Your task to perform on an android device: clear all cookies in the chrome app Image 0: 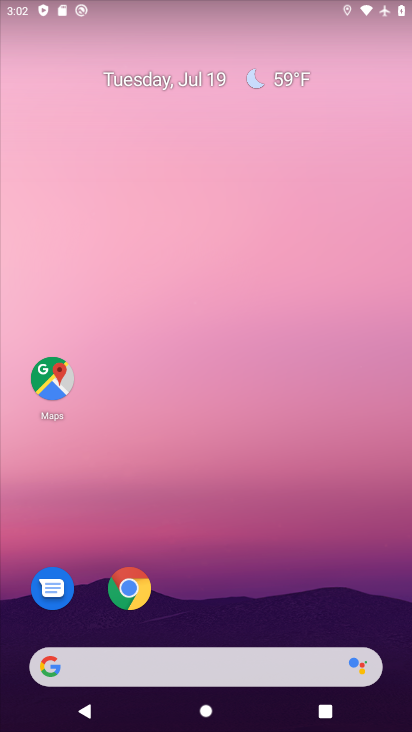
Step 0: press home button
Your task to perform on an android device: clear all cookies in the chrome app Image 1: 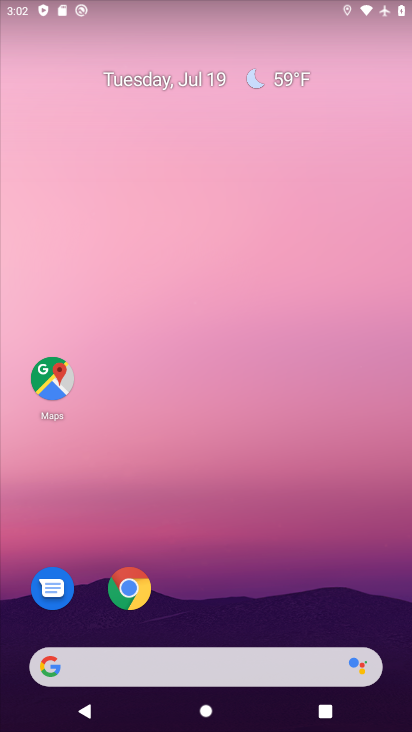
Step 1: drag from (263, 642) to (282, 164)
Your task to perform on an android device: clear all cookies in the chrome app Image 2: 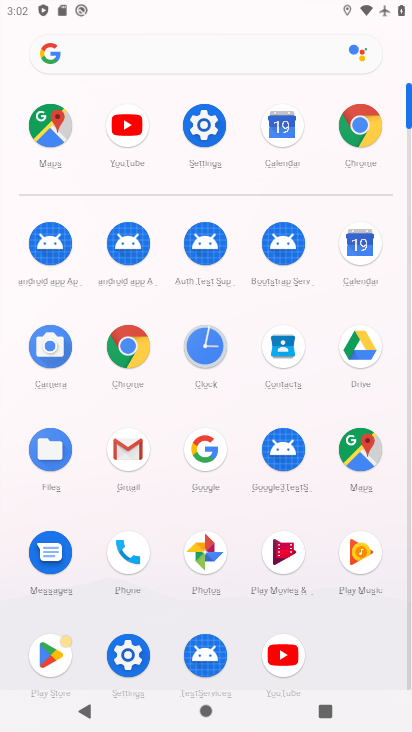
Step 2: click (363, 128)
Your task to perform on an android device: clear all cookies in the chrome app Image 3: 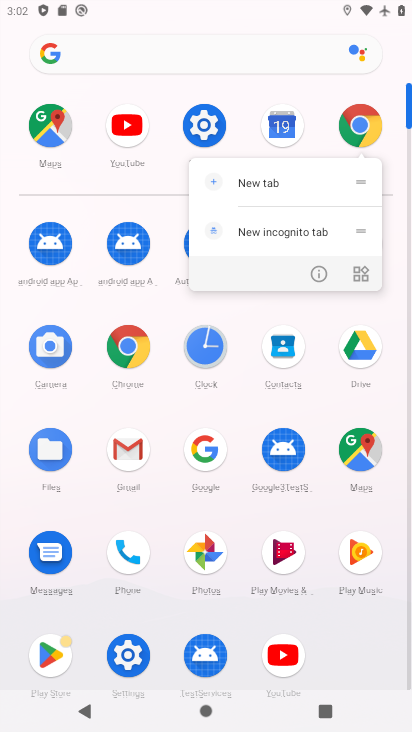
Step 3: click (363, 129)
Your task to perform on an android device: clear all cookies in the chrome app Image 4: 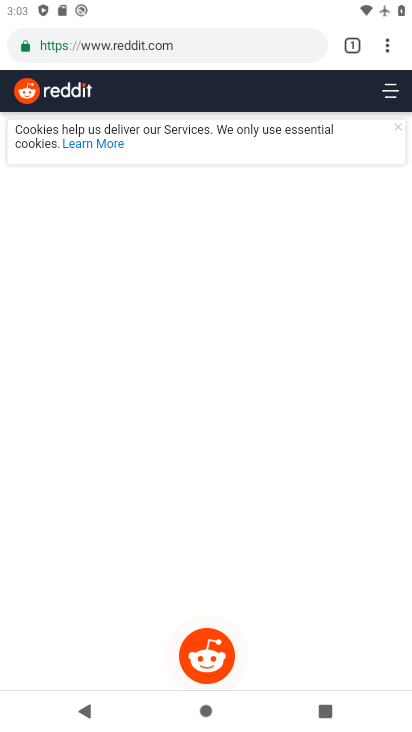
Step 4: click (387, 55)
Your task to perform on an android device: clear all cookies in the chrome app Image 5: 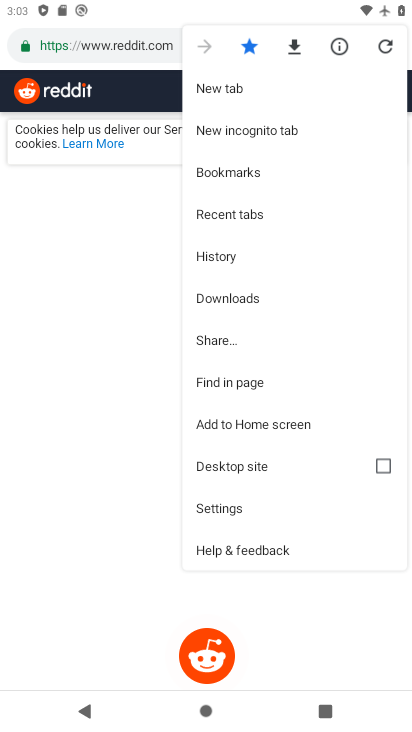
Step 5: click (213, 515)
Your task to perform on an android device: clear all cookies in the chrome app Image 6: 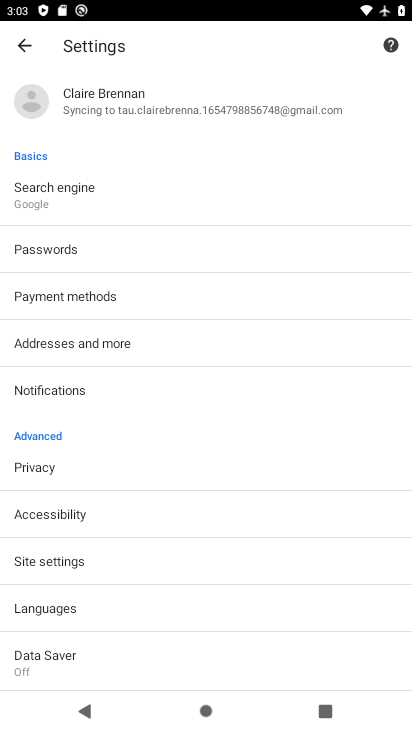
Step 6: click (42, 568)
Your task to perform on an android device: clear all cookies in the chrome app Image 7: 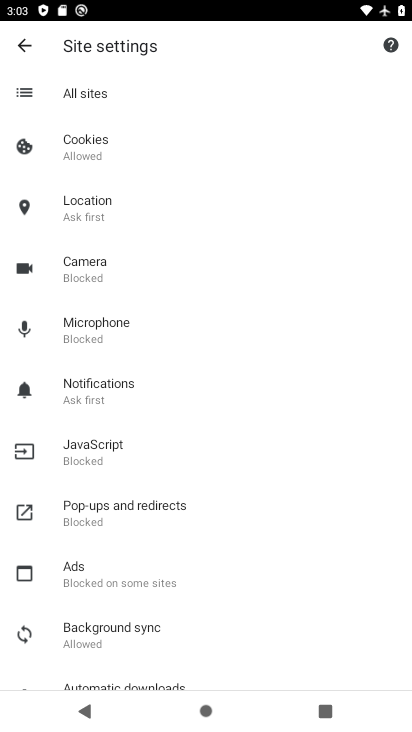
Step 7: click (20, 50)
Your task to perform on an android device: clear all cookies in the chrome app Image 8: 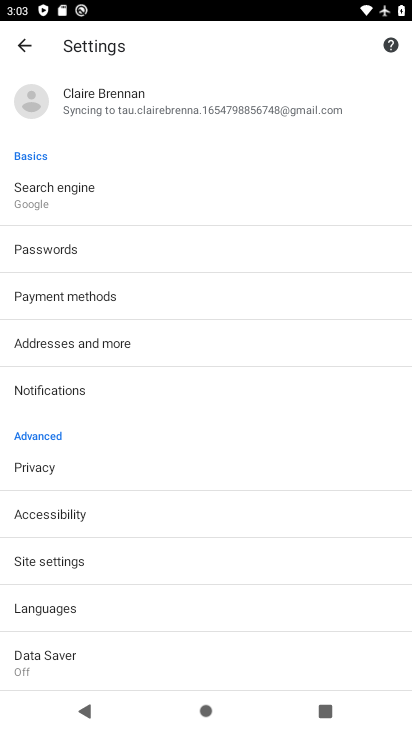
Step 8: click (39, 466)
Your task to perform on an android device: clear all cookies in the chrome app Image 9: 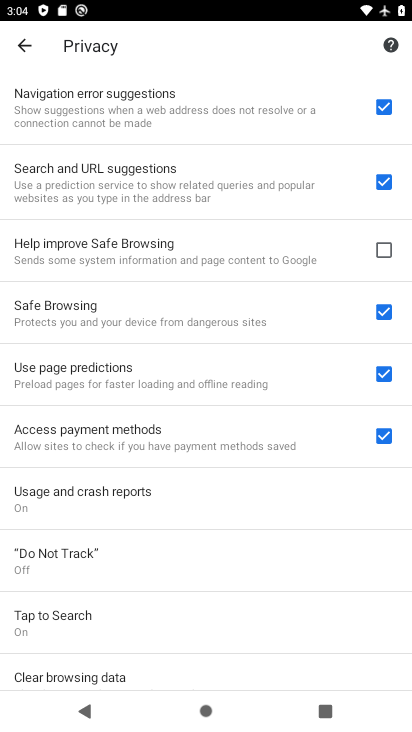
Step 9: drag from (220, 614) to (254, 256)
Your task to perform on an android device: clear all cookies in the chrome app Image 10: 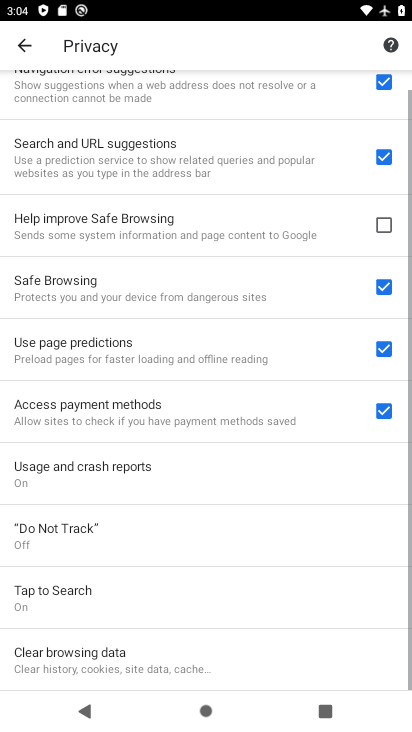
Step 10: click (85, 663)
Your task to perform on an android device: clear all cookies in the chrome app Image 11: 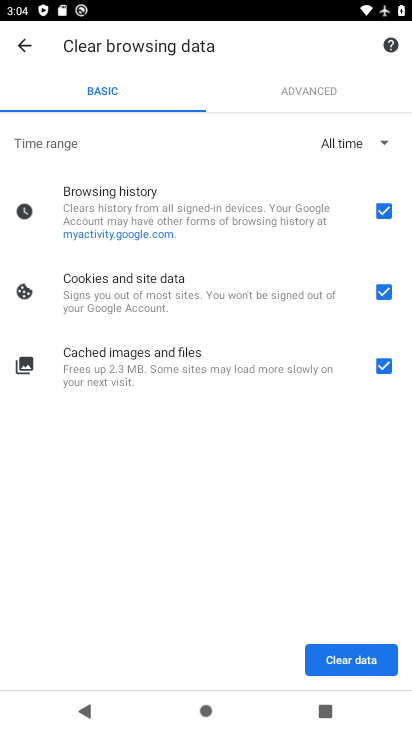
Step 11: click (335, 669)
Your task to perform on an android device: clear all cookies in the chrome app Image 12: 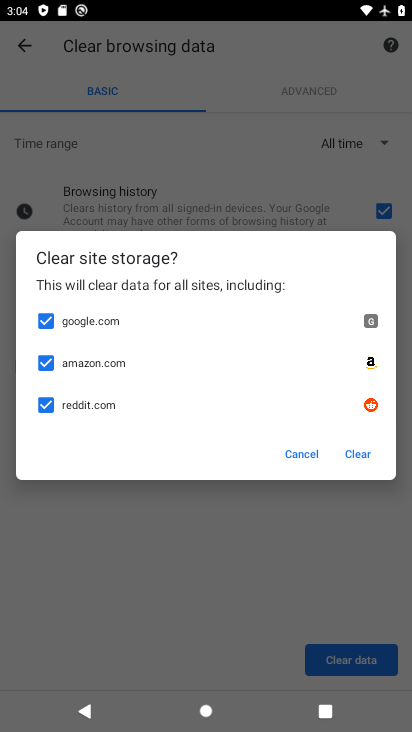
Step 12: click (370, 458)
Your task to perform on an android device: clear all cookies in the chrome app Image 13: 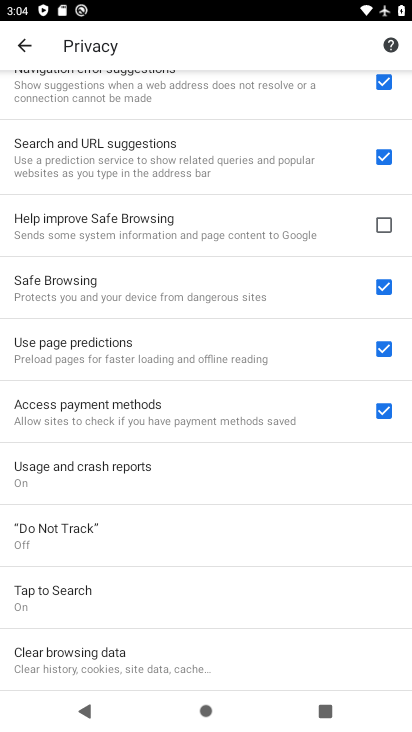
Step 13: task complete